Your task to perform on an android device: turn off location history Image 0: 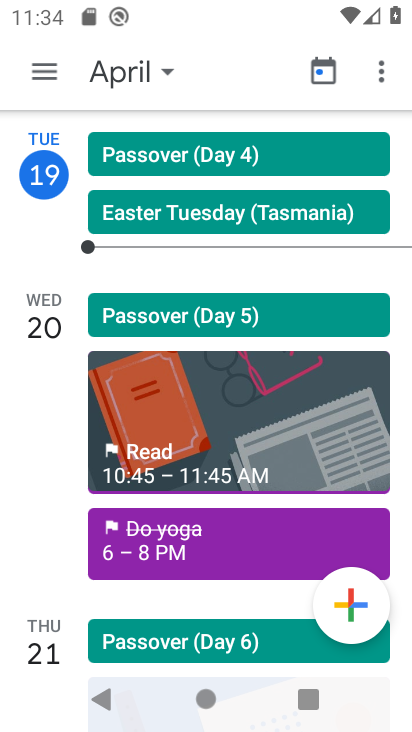
Step 0: press home button
Your task to perform on an android device: turn off location history Image 1: 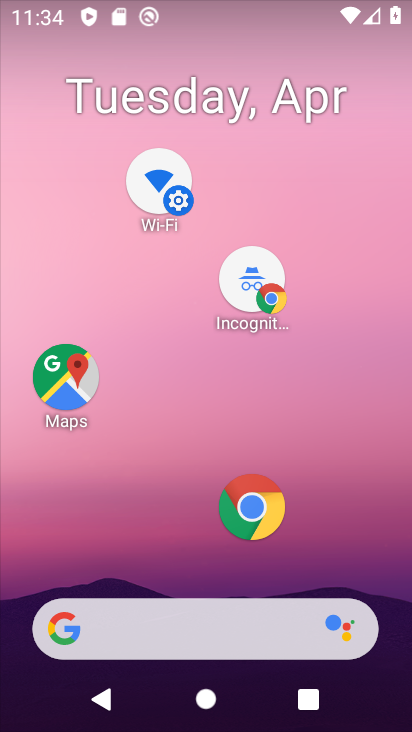
Step 1: drag from (107, 729) to (181, 279)
Your task to perform on an android device: turn off location history Image 2: 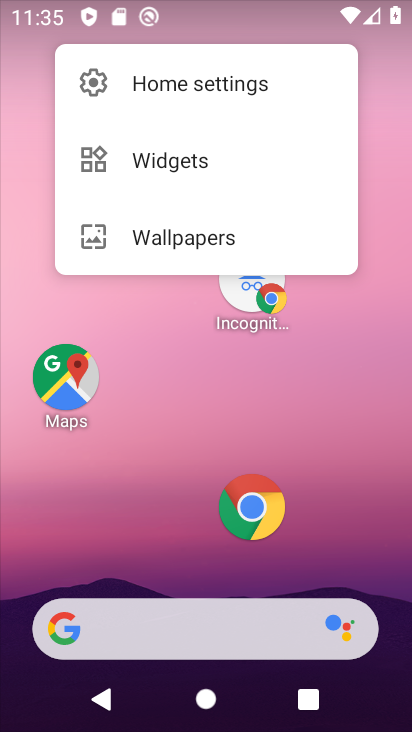
Step 2: click (294, 439)
Your task to perform on an android device: turn off location history Image 3: 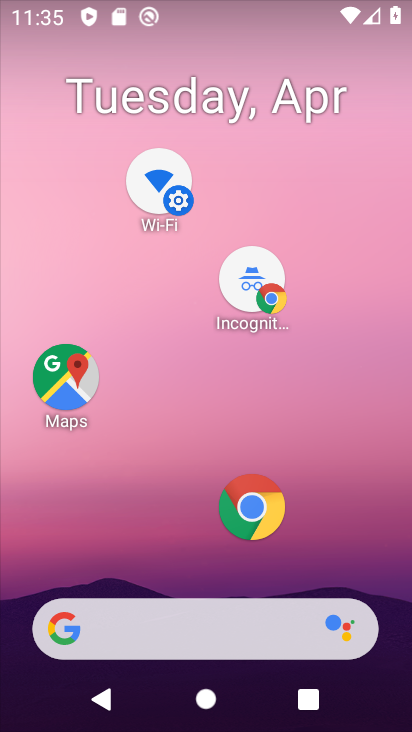
Step 3: click (146, 417)
Your task to perform on an android device: turn off location history Image 4: 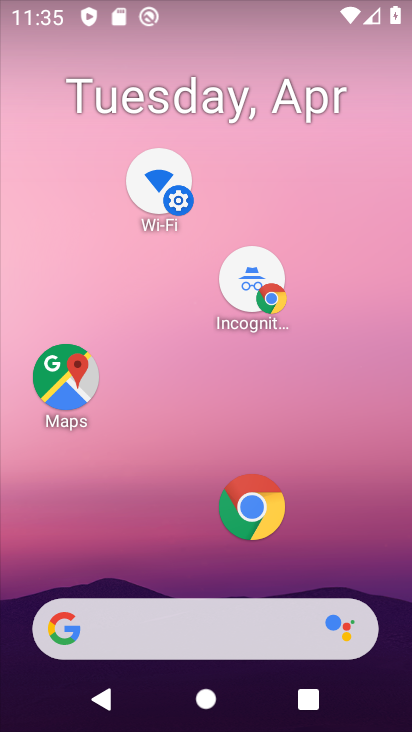
Step 4: drag from (124, 478) to (189, 339)
Your task to perform on an android device: turn off location history Image 5: 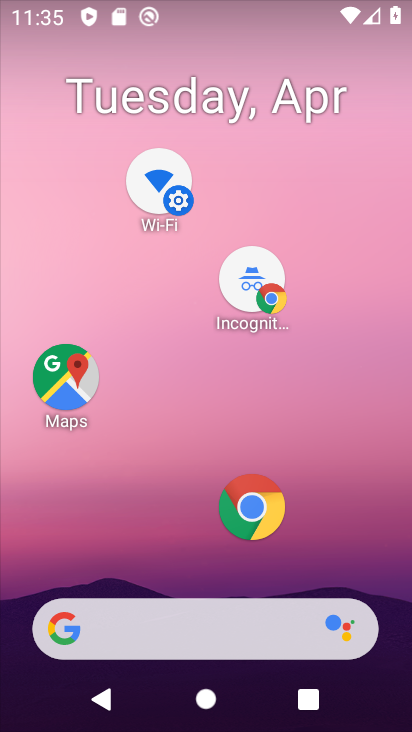
Step 5: drag from (20, 634) to (178, 202)
Your task to perform on an android device: turn off location history Image 6: 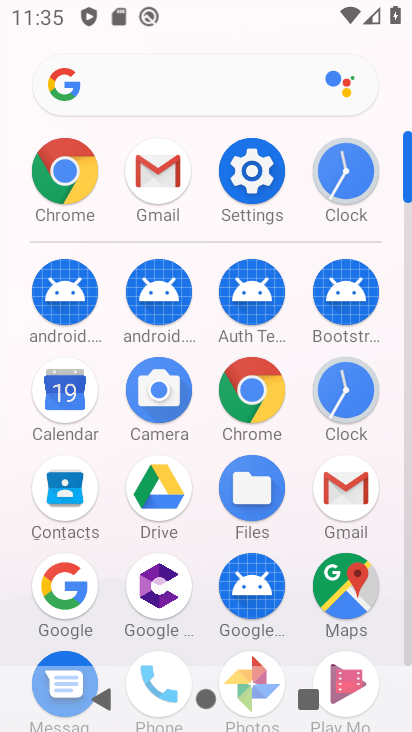
Step 6: click (253, 170)
Your task to perform on an android device: turn off location history Image 7: 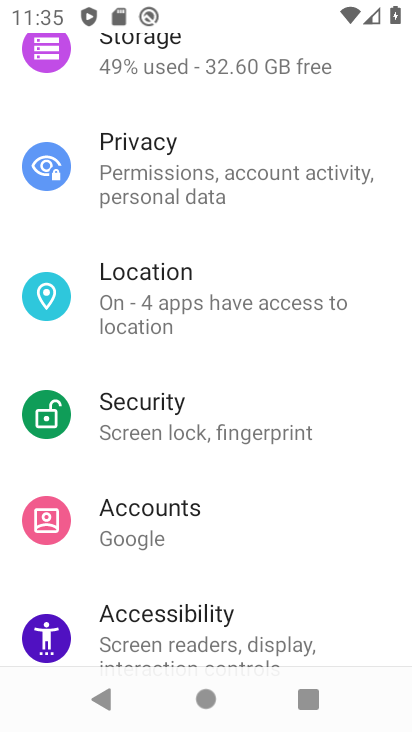
Step 7: click (148, 287)
Your task to perform on an android device: turn off location history Image 8: 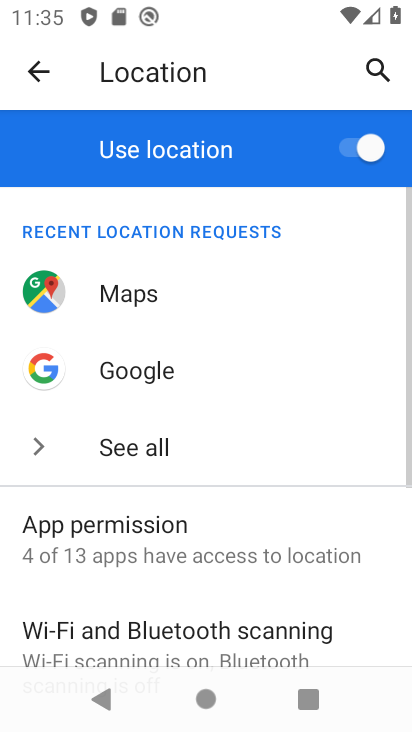
Step 8: drag from (107, 589) to (162, 304)
Your task to perform on an android device: turn off location history Image 9: 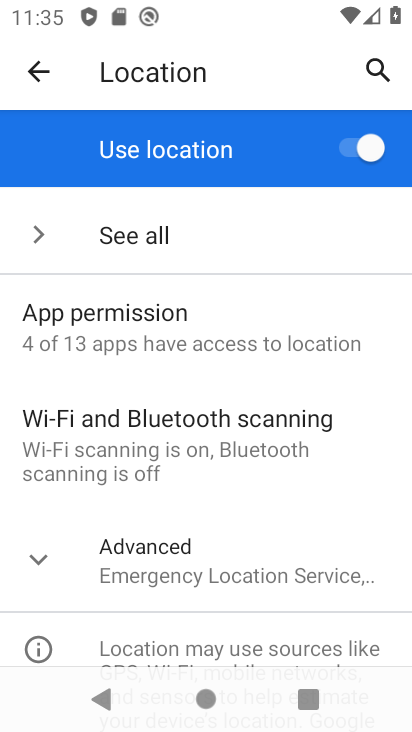
Step 9: click (224, 577)
Your task to perform on an android device: turn off location history Image 10: 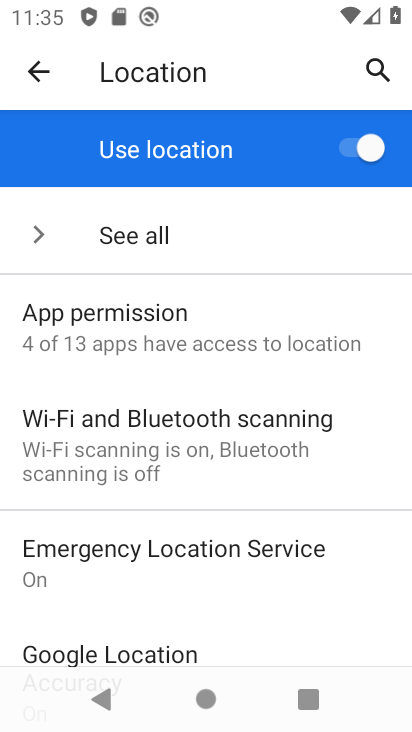
Step 10: drag from (196, 637) to (266, 418)
Your task to perform on an android device: turn off location history Image 11: 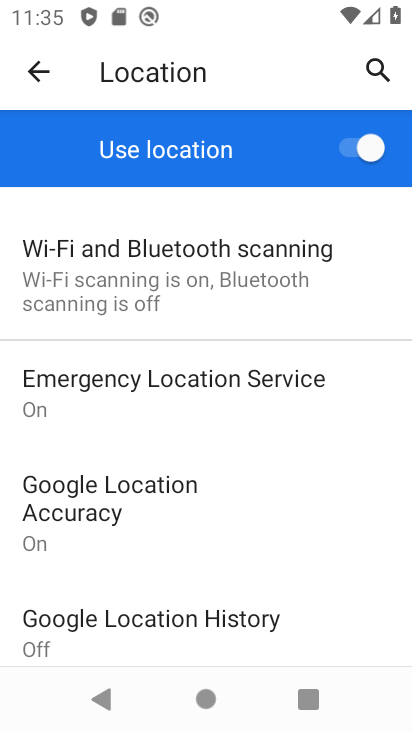
Step 11: drag from (215, 622) to (306, 411)
Your task to perform on an android device: turn off location history Image 12: 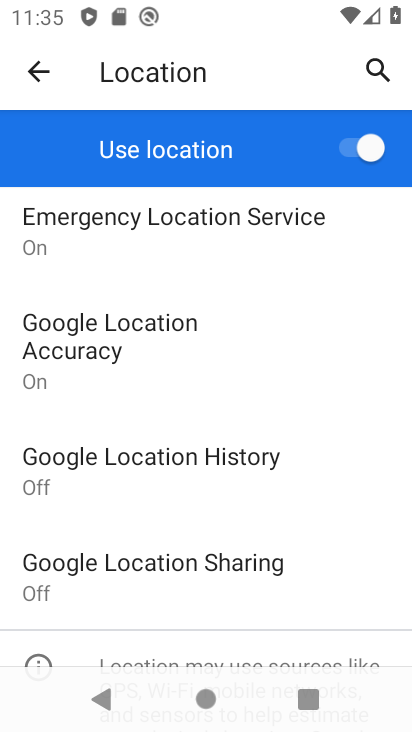
Step 12: click (197, 467)
Your task to perform on an android device: turn off location history Image 13: 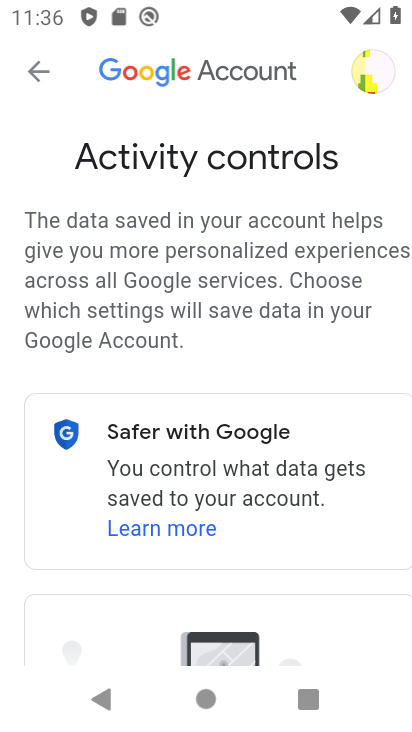
Step 13: drag from (94, 590) to (158, 297)
Your task to perform on an android device: turn off location history Image 14: 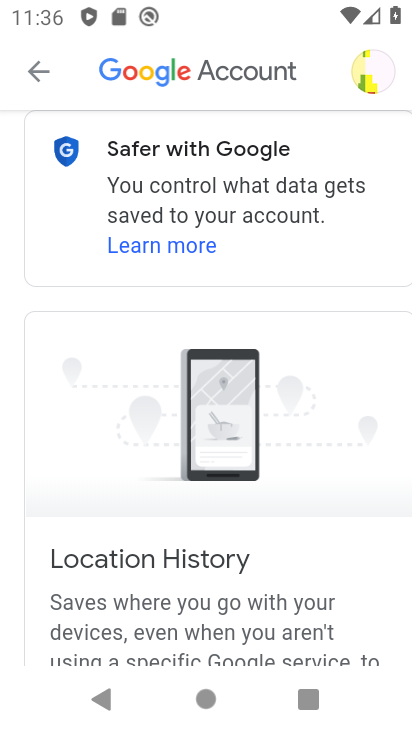
Step 14: drag from (191, 607) to (297, 330)
Your task to perform on an android device: turn off location history Image 15: 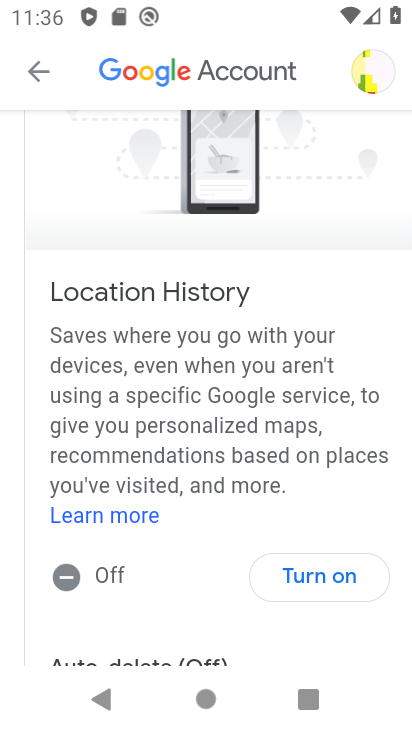
Step 15: click (312, 577)
Your task to perform on an android device: turn off location history Image 16: 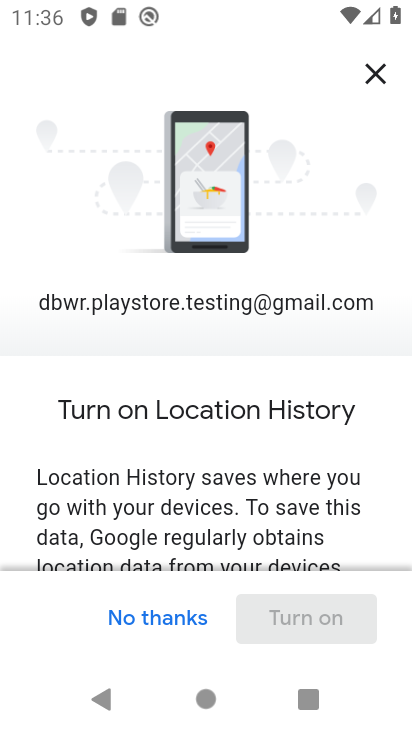
Step 16: drag from (270, 427) to (343, 133)
Your task to perform on an android device: turn off location history Image 17: 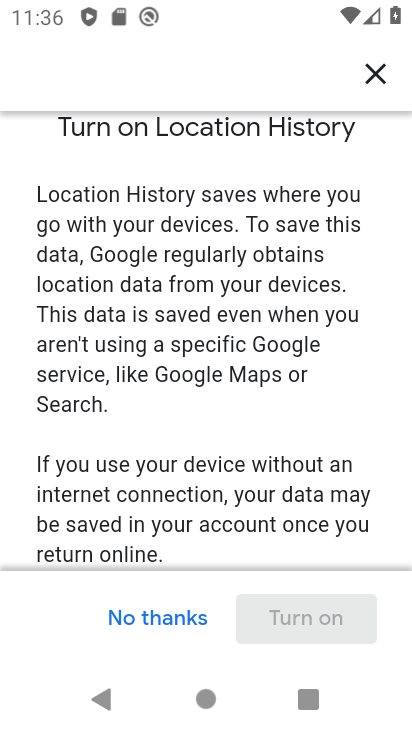
Step 17: drag from (257, 443) to (372, 165)
Your task to perform on an android device: turn off location history Image 18: 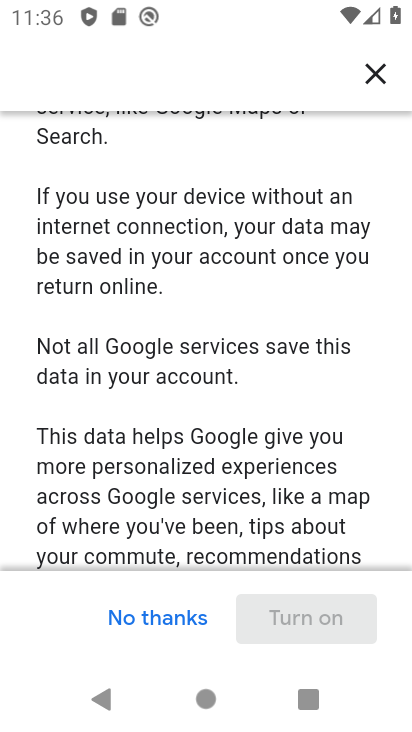
Step 18: drag from (217, 486) to (318, 258)
Your task to perform on an android device: turn off location history Image 19: 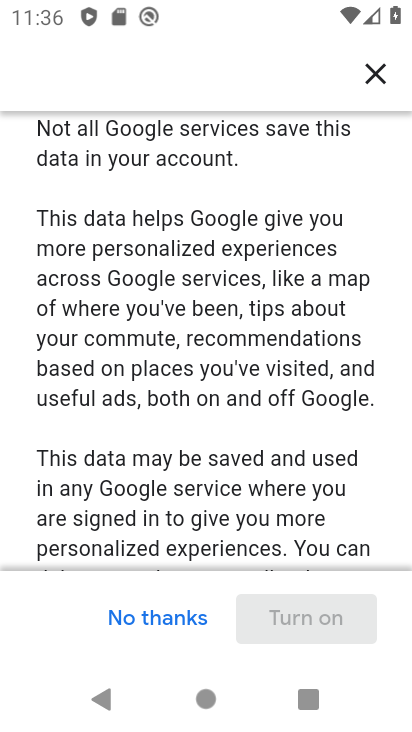
Step 19: drag from (220, 462) to (373, 175)
Your task to perform on an android device: turn off location history Image 20: 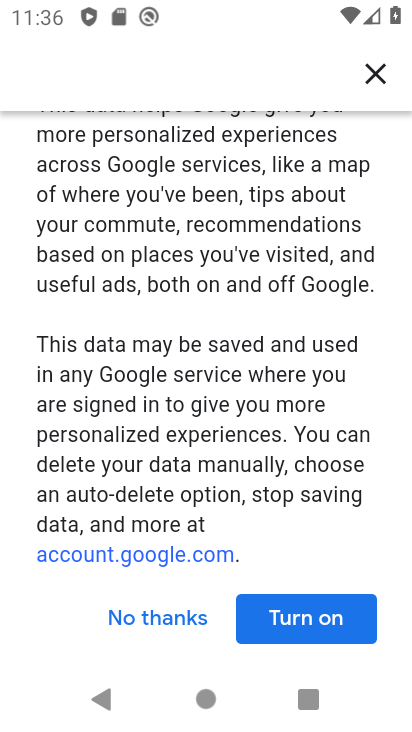
Step 20: drag from (195, 531) to (344, 244)
Your task to perform on an android device: turn off location history Image 21: 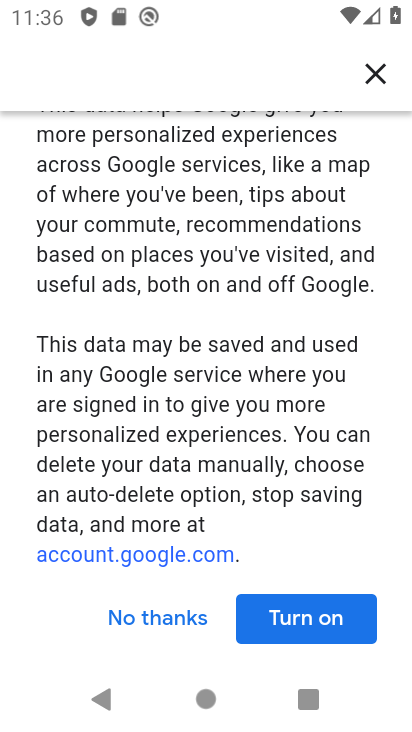
Step 21: click (264, 617)
Your task to perform on an android device: turn off location history Image 22: 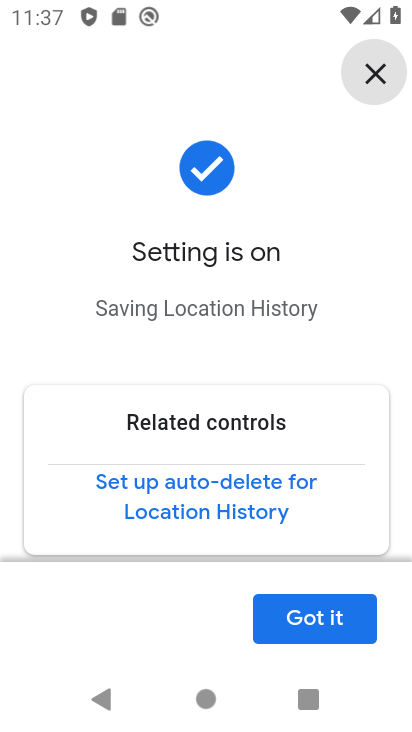
Step 22: click (329, 617)
Your task to perform on an android device: turn off location history Image 23: 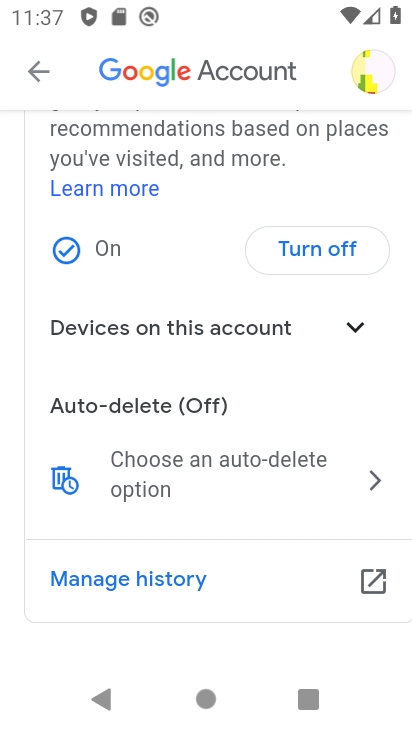
Step 23: task complete